Your task to perform on an android device: Open Maps and search for coffee Image 0: 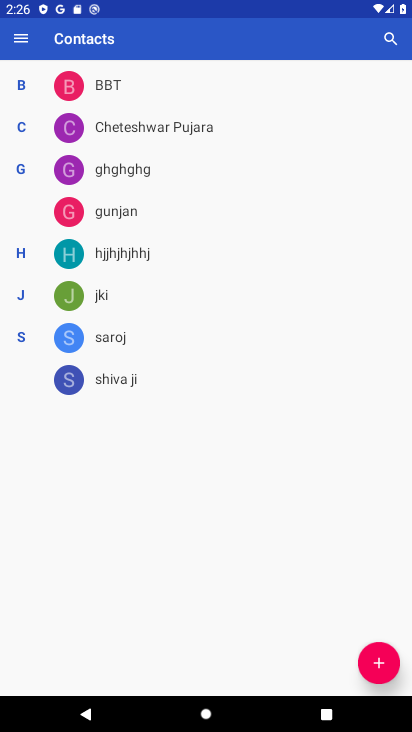
Step 0: press home button
Your task to perform on an android device: Open Maps and search for coffee Image 1: 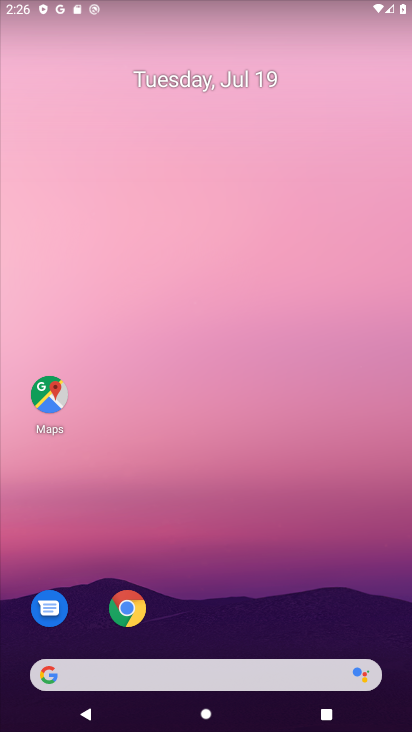
Step 1: drag from (306, 545) to (237, 48)
Your task to perform on an android device: Open Maps and search for coffee Image 2: 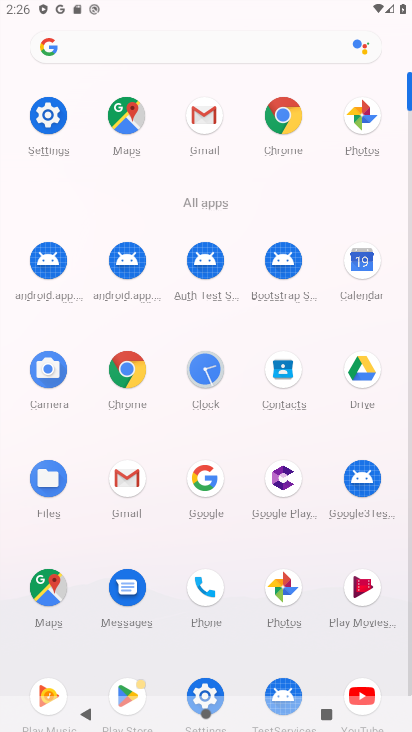
Step 2: click (287, 110)
Your task to perform on an android device: Open Maps and search for coffee Image 3: 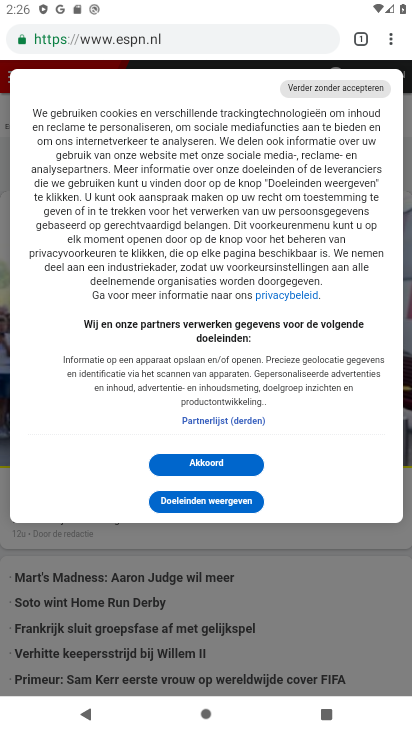
Step 3: click (236, 40)
Your task to perform on an android device: Open Maps and search for coffee Image 4: 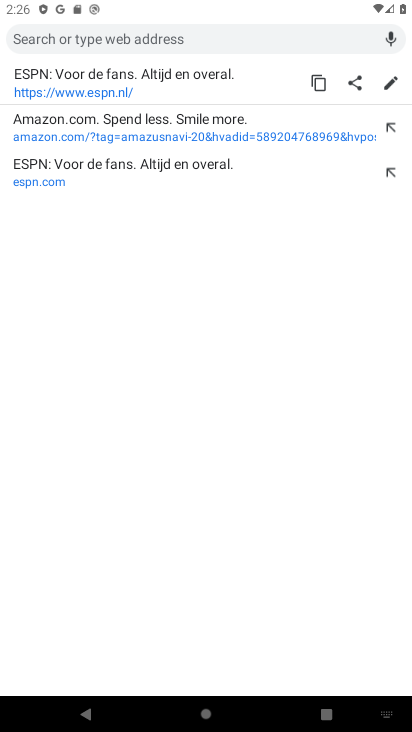
Step 4: press home button
Your task to perform on an android device: Open Maps and search for coffee Image 5: 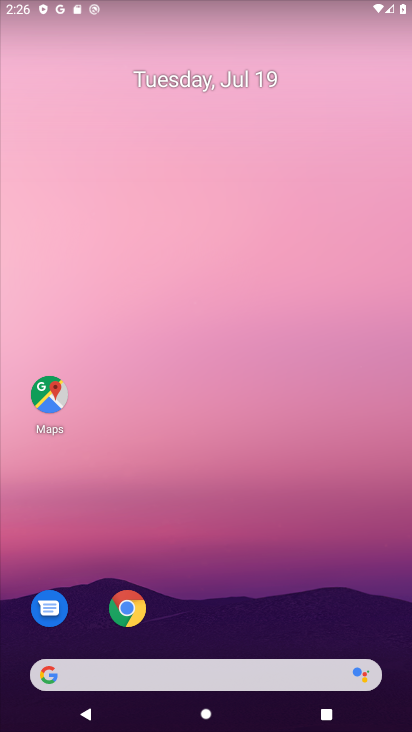
Step 5: click (49, 404)
Your task to perform on an android device: Open Maps and search for coffee Image 6: 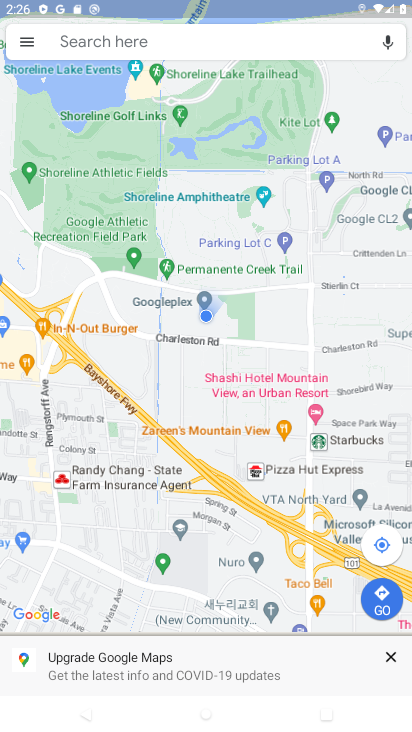
Step 6: click (208, 39)
Your task to perform on an android device: Open Maps and search for coffee Image 7: 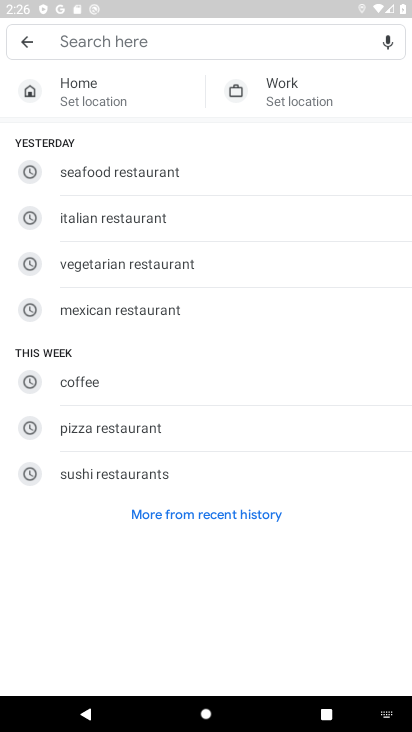
Step 7: click (80, 387)
Your task to perform on an android device: Open Maps and search for coffee Image 8: 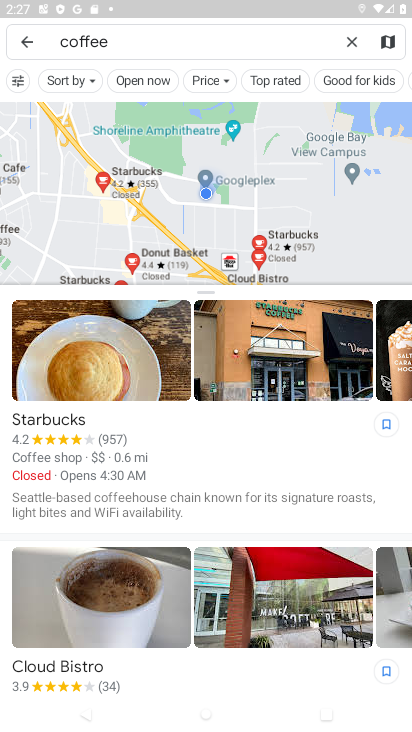
Step 8: task complete